Your task to perform on an android device: toggle notification dots Image 0: 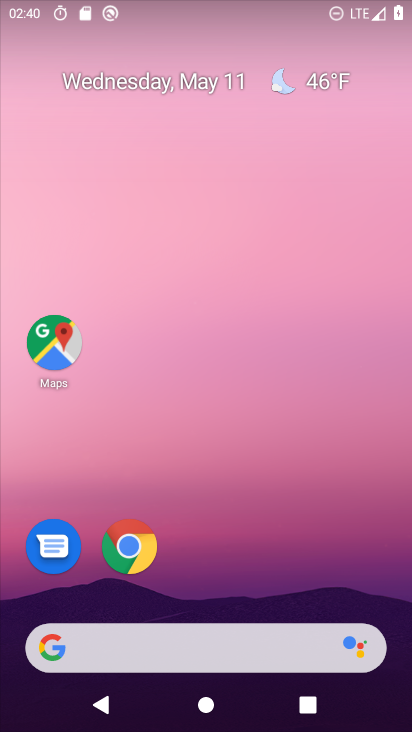
Step 0: drag from (305, 663) to (255, 186)
Your task to perform on an android device: toggle notification dots Image 1: 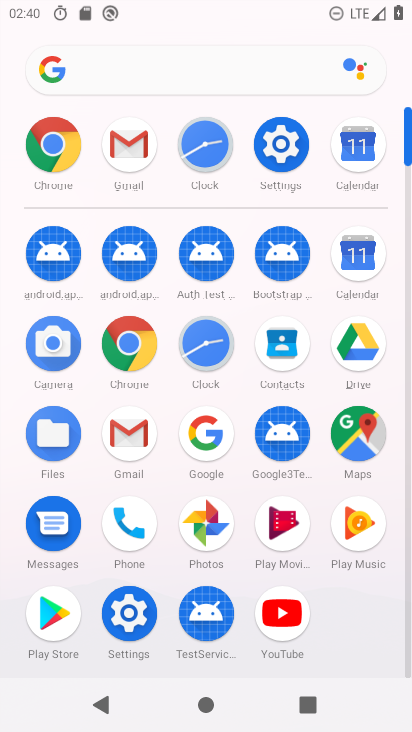
Step 1: click (265, 149)
Your task to perform on an android device: toggle notification dots Image 2: 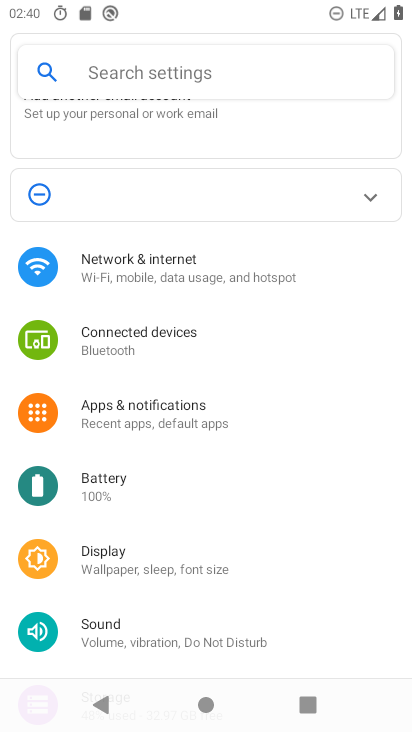
Step 2: click (231, 74)
Your task to perform on an android device: toggle notification dots Image 3: 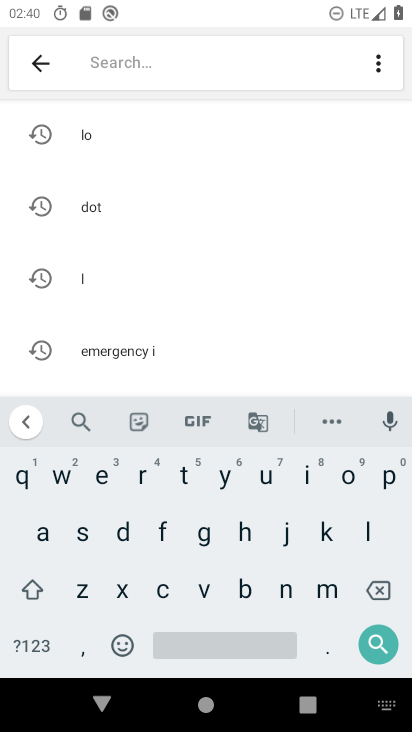
Step 3: click (126, 531)
Your task to perform on an android device: toggle notification dots Image 4: 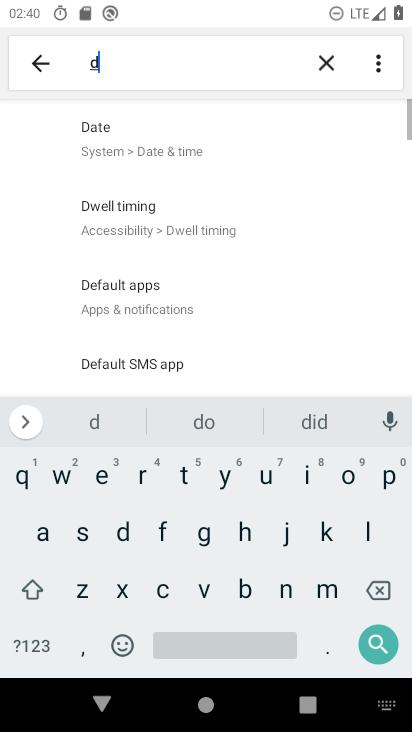
Step 4: click (344, 469)
Your task to perform on an android device: toggle notification dots Image 5: 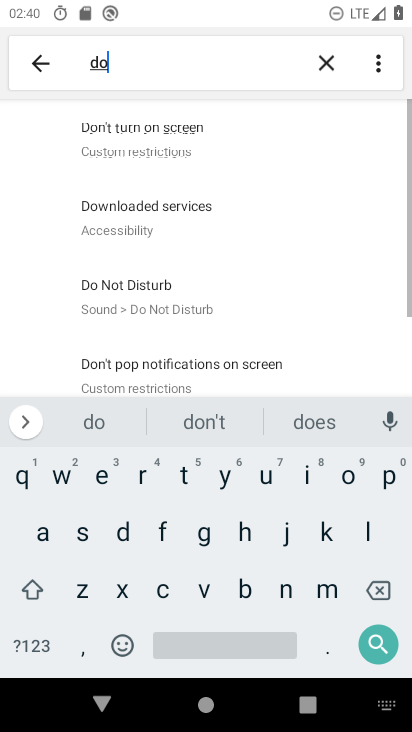
Step 5: click (177, 472)
Your task to perform on an android device: toggle notification dots Image 6: 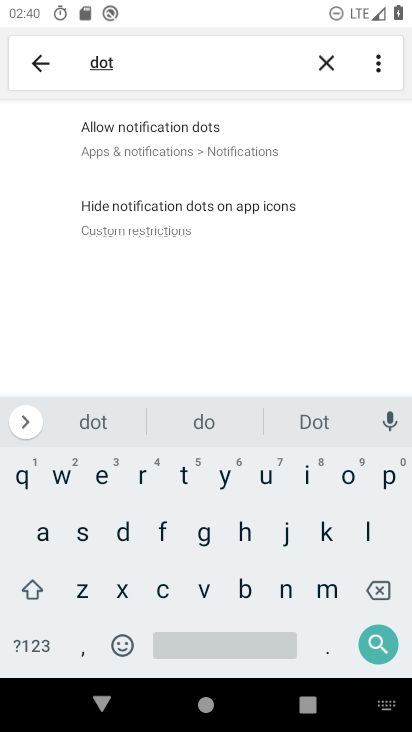
Step 6: click (173, 146)
Your task to perform on an android device: toggle notification dots Image 7: 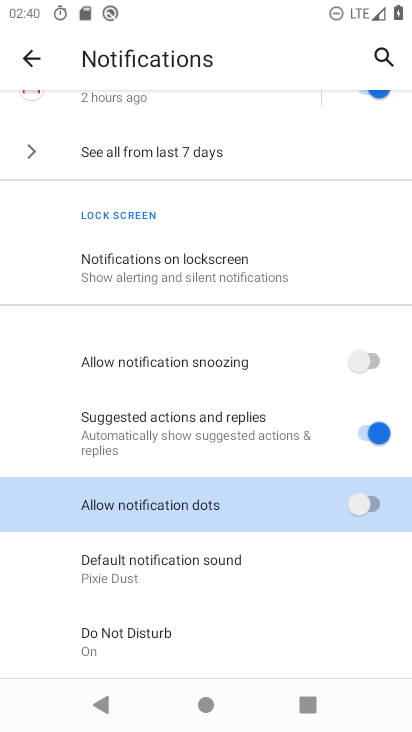
Step 7: click (165, 519)
Your task to perform on an android device: toggle notification dots Image 8: 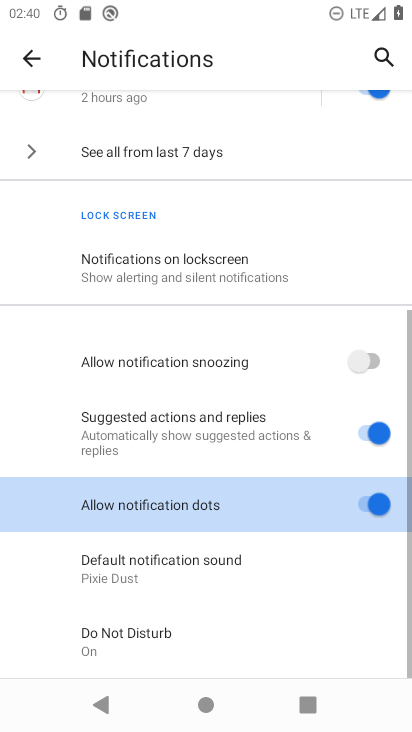
Step 8: click (164, 511)
Your task to perform on an android device: toggle notification dots Image 9: 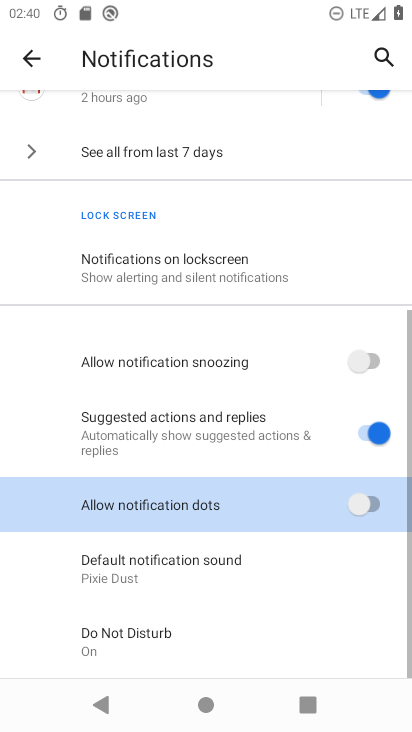
Step 9: task complete